Your task to perform on an android device: Go to settings Image 0: 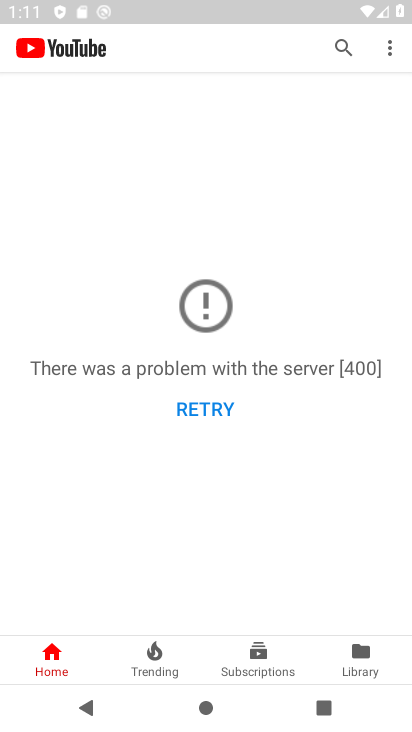
Step 0: press home button
Your task to perform on an android device: Go to settings Image 1: 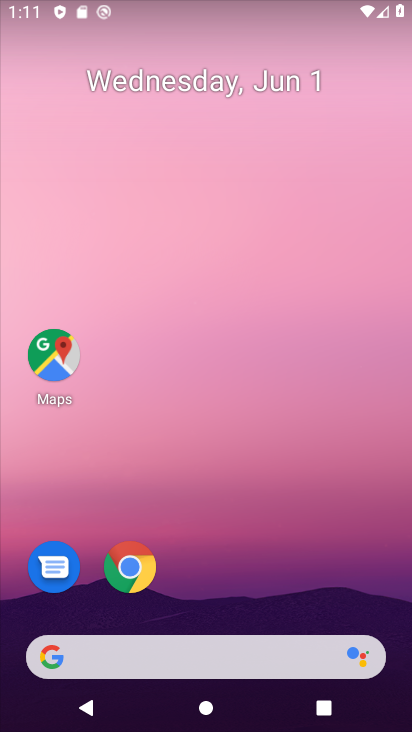
Step 1: drag from (177, 649) to (127, 15)
Your task to perform on an android device: Go to settings Image 2: 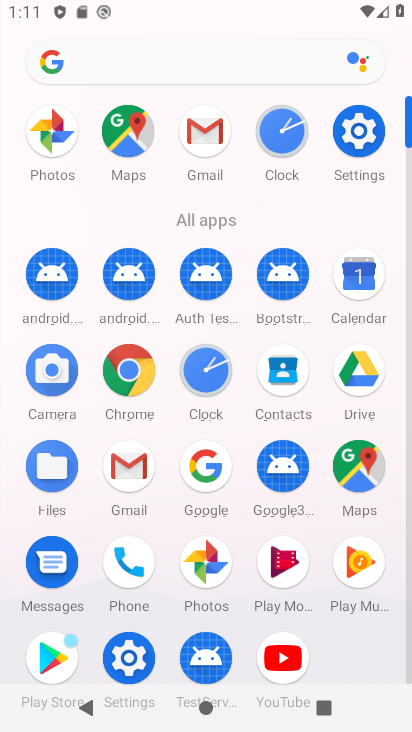
Step 2: click (360, 155)
Your task to perform on an android device: Go to settings Image 3: 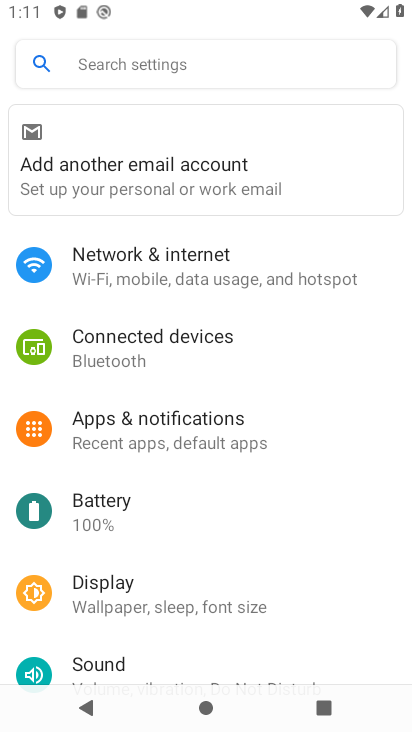
Step 3: task complete